Your task to perform on an android device: Open Google Maps and go to "Timeline" Image 0: 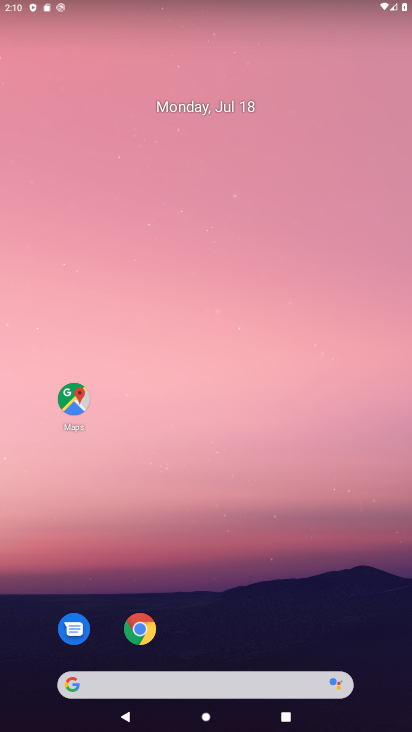
Step 0: click (61, 399)
Your task to perform on an android device: Open Google Maps and go to "Timeline" Image 1: 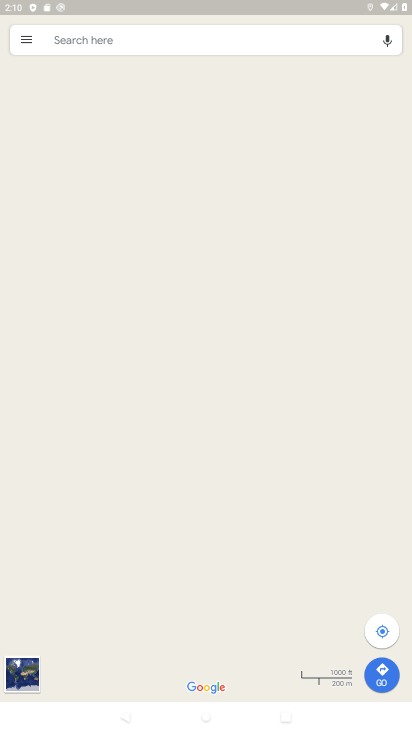
Step 1: click (21, 38)
Your task to perform on an android device: Open Google Maps and go to "Timeline" Image 2: 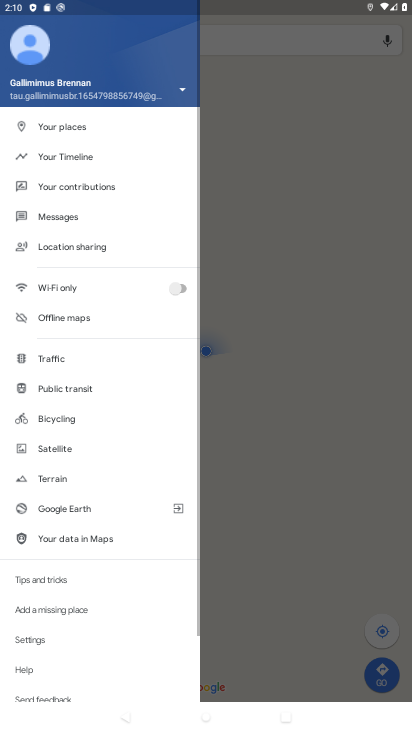
Step 2: click (57, 151)
Your task to perform on an android device: Open Google Maps and go to "Timeline" Image 3: 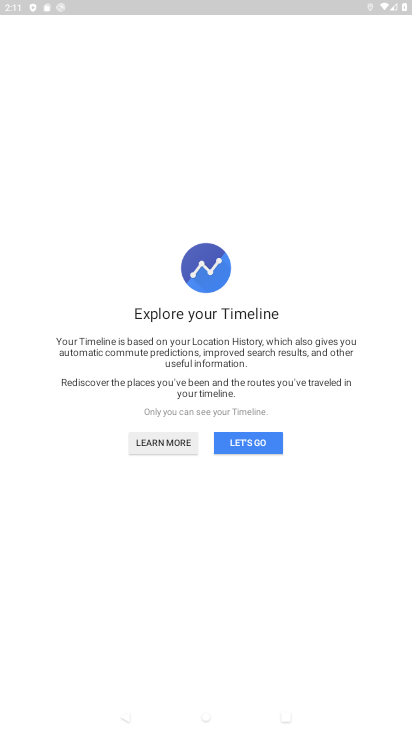
Step 3: click (225, 446)
Your task to perform on an android device: Open Google Maps and go to "Timeline" Image 4: 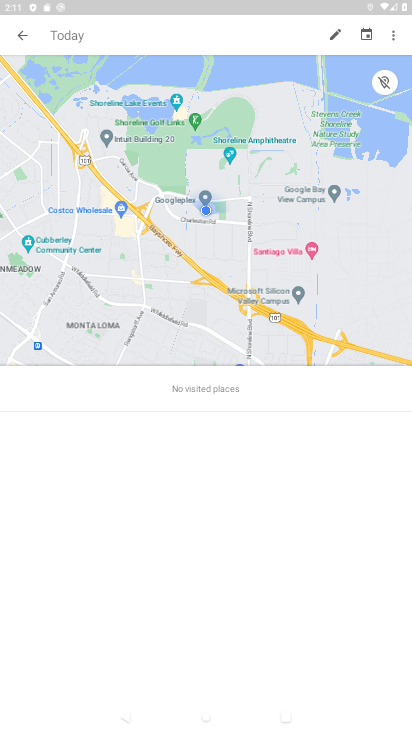
Step 4: task complete